Your task to perform on an android device: open app "Flipkart Online Shopping App" (install if not already installed) Image 0: 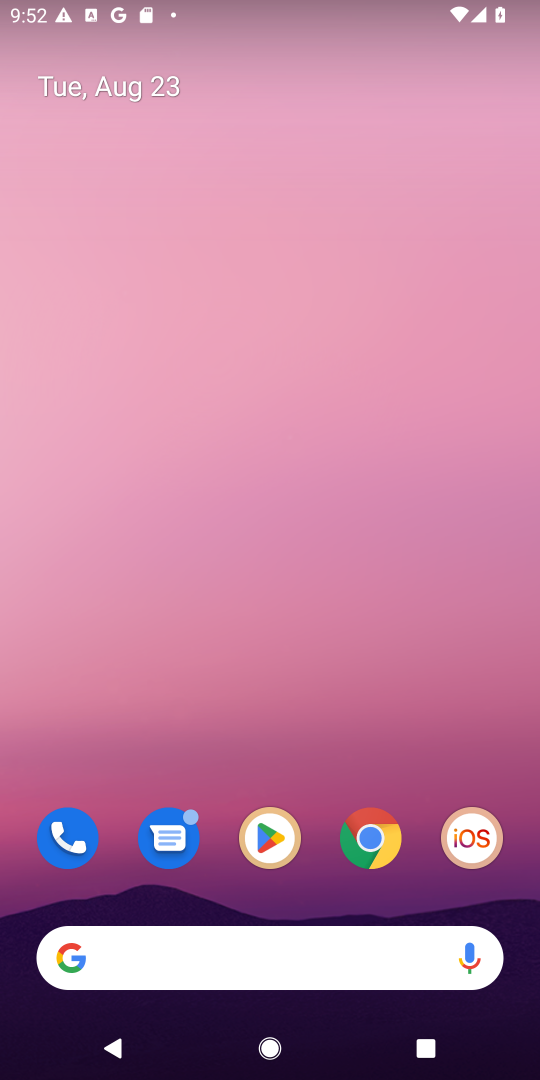
Step 0: click (286, 835)
Your task to perform on an android device: open app "Flipkart Online Shopping App" (install if not already installed) Image 1: 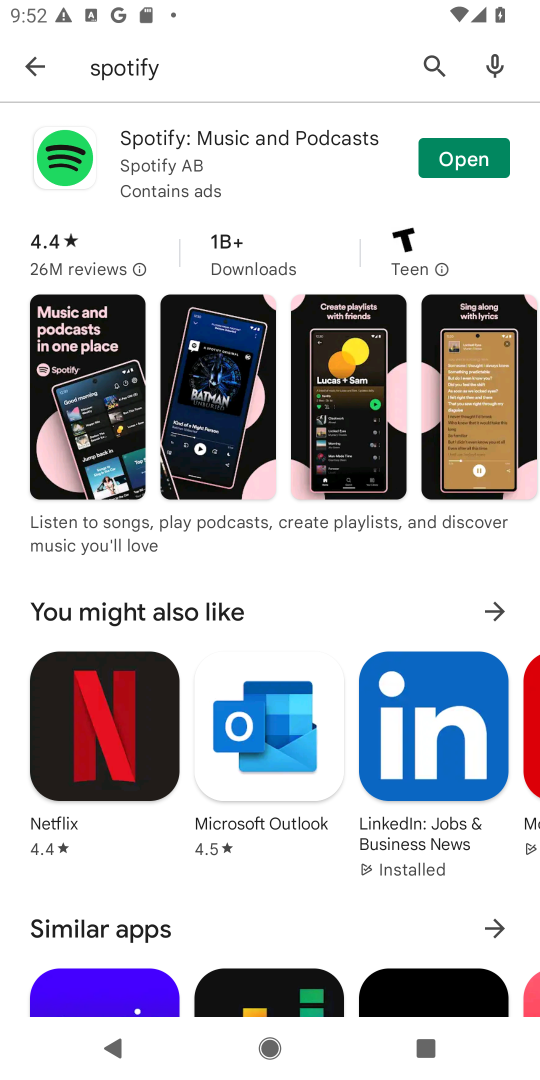
Step 1: click (426, 64)
Your task to perform on an android device: open app "Flipkart Online Shopping App" (install if not already installed) Image 2: 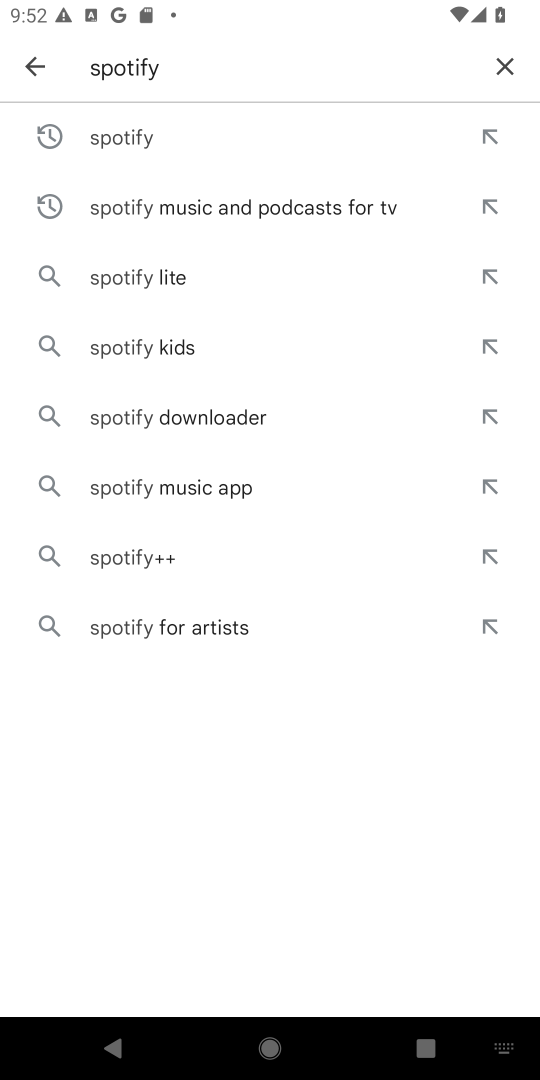
Step 2: click (513, 63)
Your task to perform on an android device: open app "Flipkart Online Shopping App" (install if not already installed) Image 3: 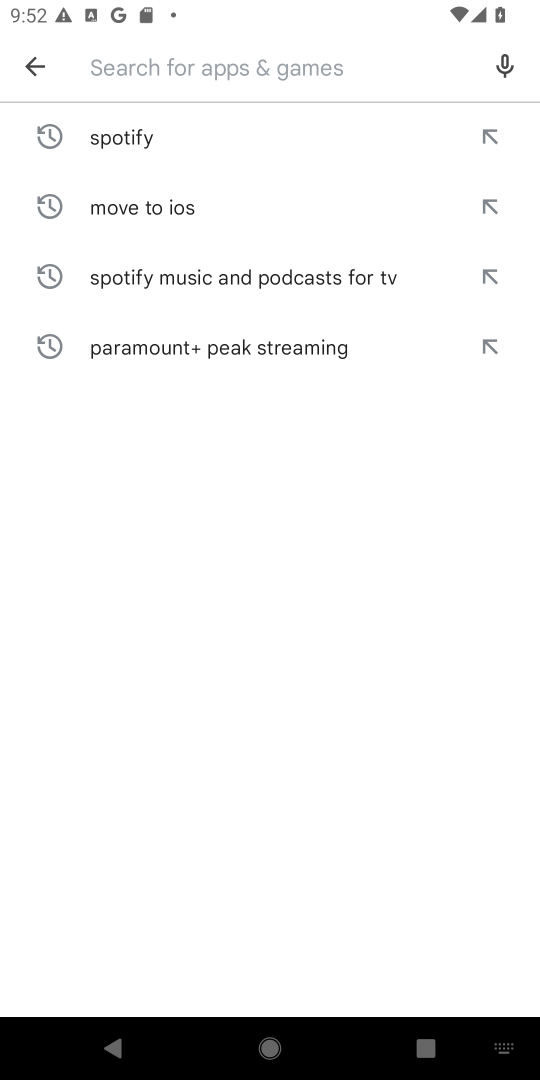
Step 3: type "Flipkart Online Shopping App"
Your task to perform on an android device: open app "Flipkart Online Shopping App" (install if not already installed) Image 4: 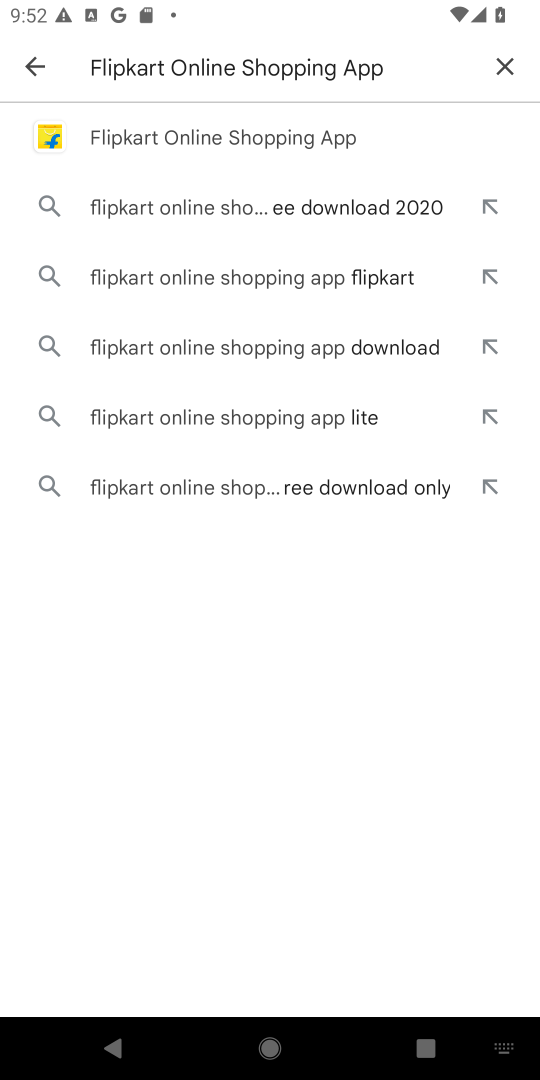
Step 4: click (207, 149)
Your task to perform on an android device: open app "Flipkart Online Shopping App" (install if not already installed) Image 5: 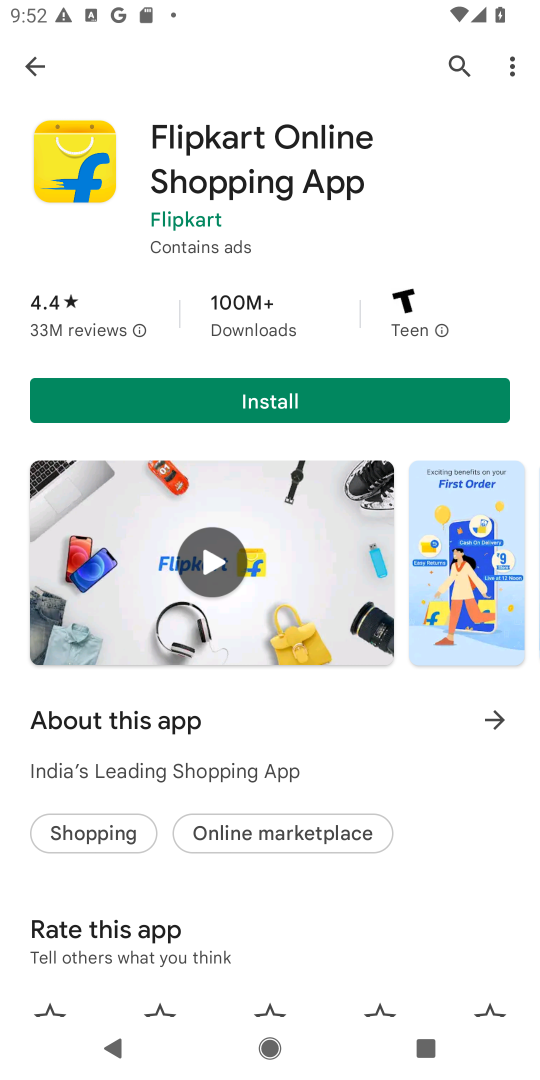
Step 5: click (320, 395)
Your task to perform on an android device: open app "Flipkart Online Shopping App" (install if not already installed) Image 6: 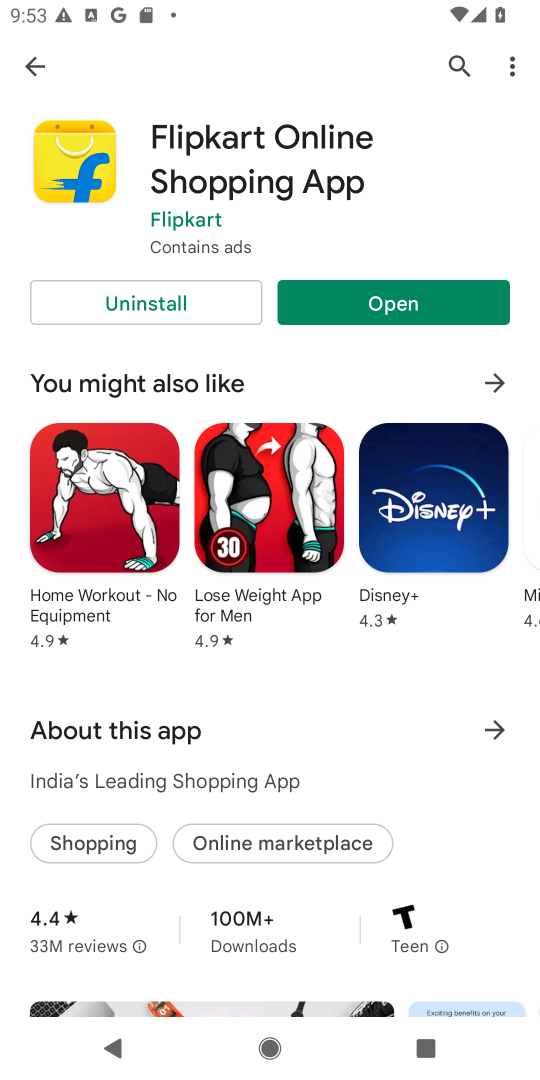
Step 6: click (381, 306)
Your task to perform on an android device: open app "Flipkart Online Shopping App" (install if not already installed) Image 7: 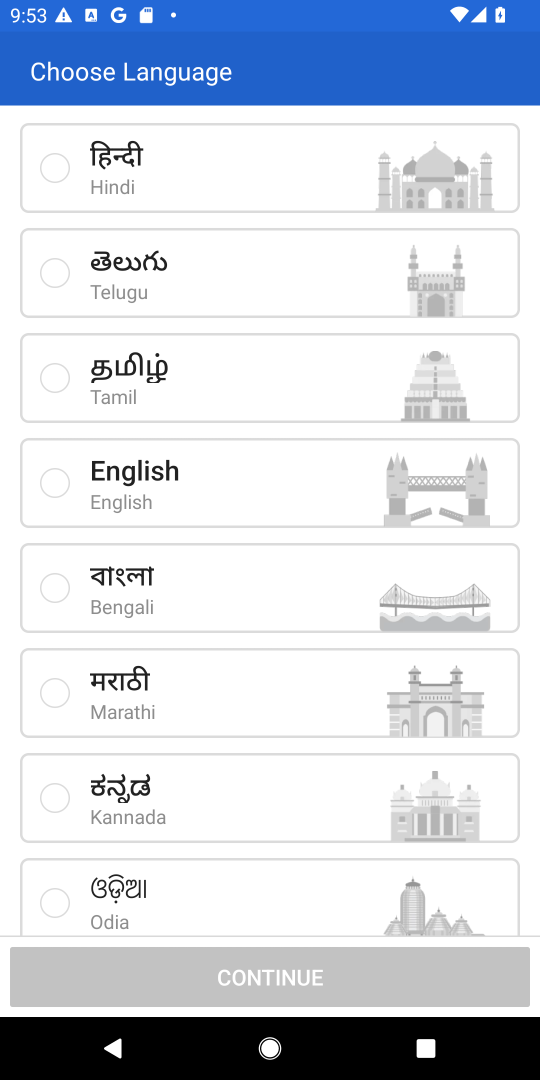
Step 7: task complete